Your task to perform on an android device: allow notifications from all sites in the chrome app Image 0: 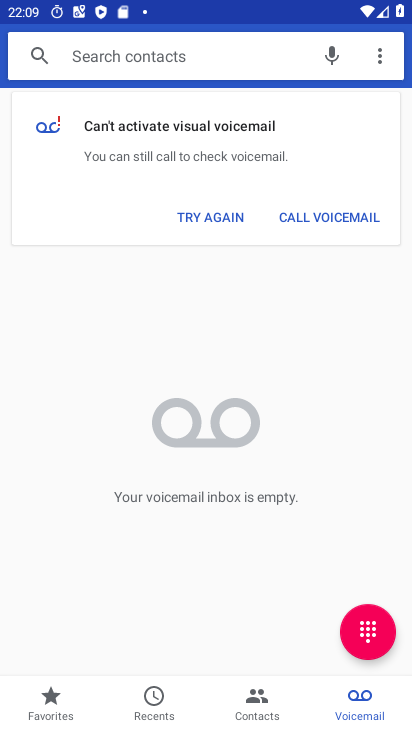
Step 0: press home button
Your task to perform on an android device: allow notifications from all sites in the chrome app Image 1: 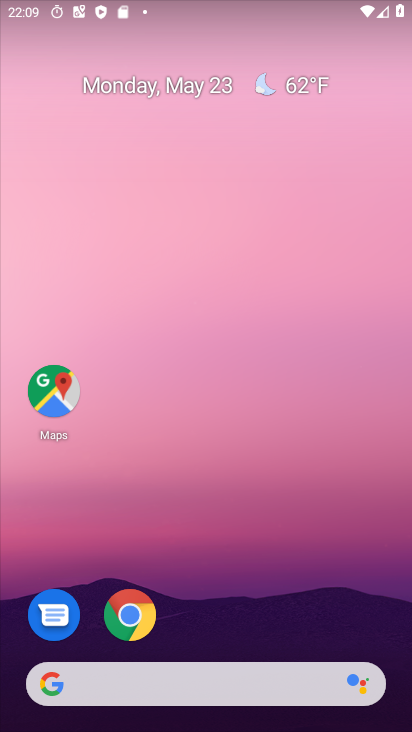
Step 1: click (139, 615)
Your task to perform on an android device: allow notifications from all sites in the chrome app Image 2: 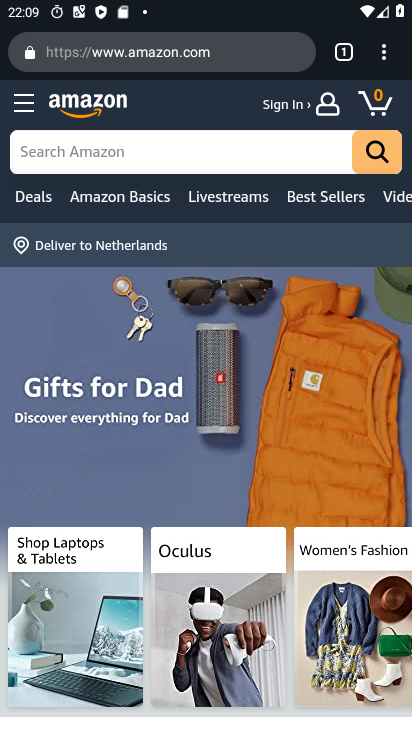
Step 2: click (373, 48)
Your task to perform on an android device: allow notifications from all sites in the chrome app Image 3: 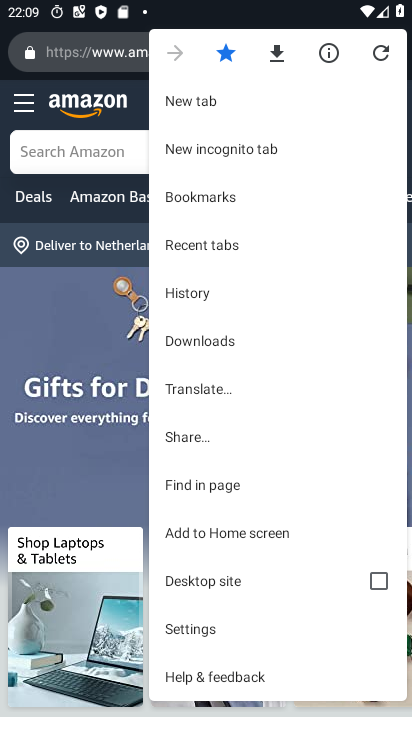
Step 3: click (217, 618)
Your task to perform on an android device: allow notifications from all sites in the chrome app Image 4: 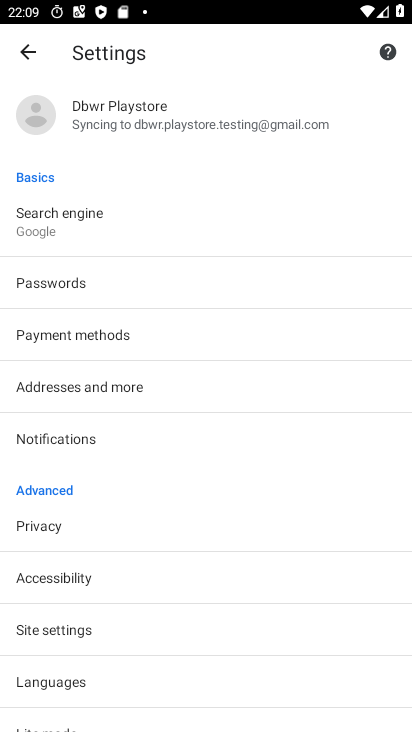
Step 4: click (83, 631)
Your task to perform on an android device: allow notifications from all sites in the chrome app Image 5: 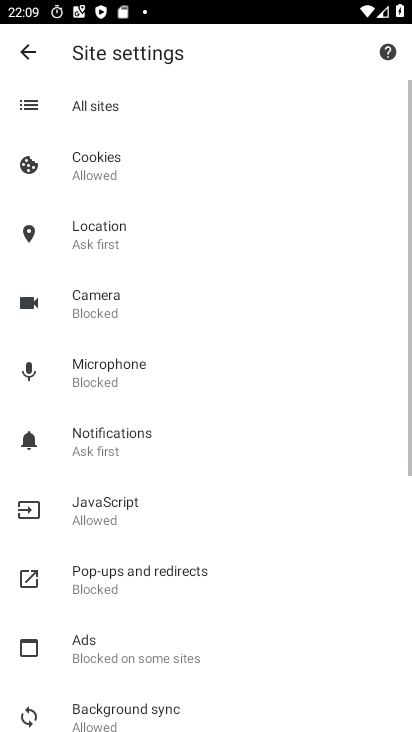
Step 5: drag from (126, 161) to (195, 32)
Your task to perform on an android device: allow notifications from all sites in the chrome app Image 6: 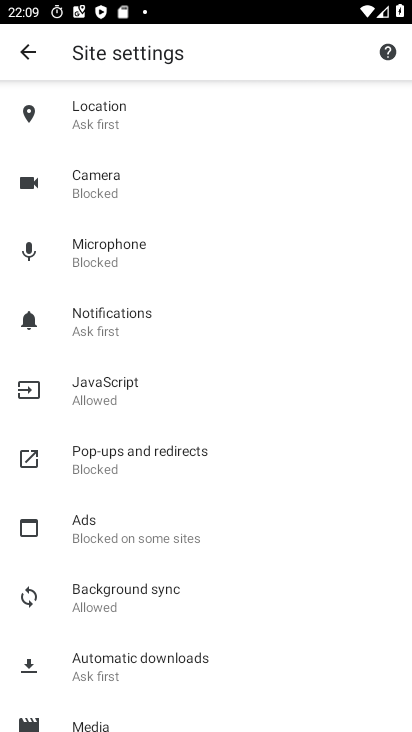
Step 6: click (123, 332)
Your task to perform on an android device: allow notifications from all sites in the chrome app Image 7: 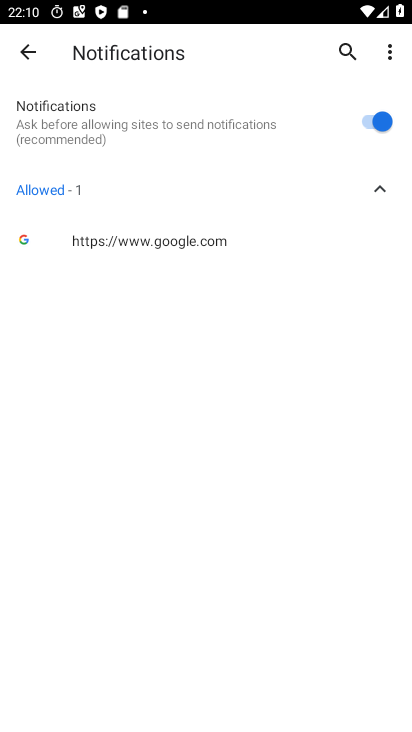
Step 7: task complete